Your task to perform on an android device: Open settings on Google Maps Image 0: 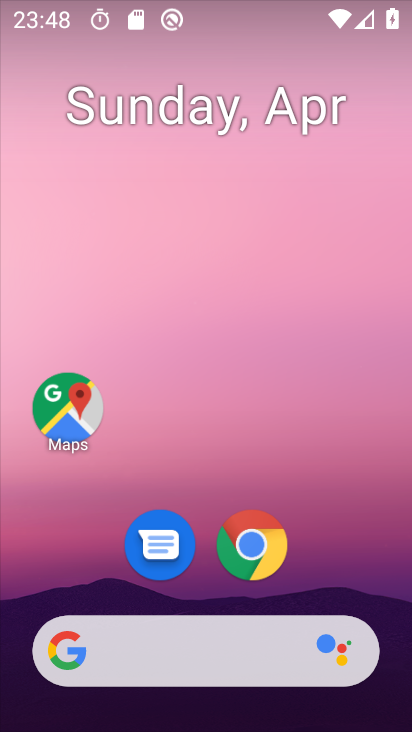
Step 0: click (351, 569)
Your task to perform on an android device: Open settings on Google Maps Image 1: 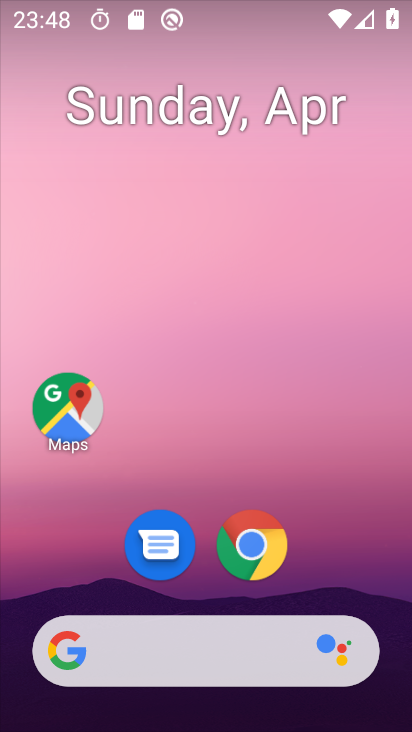
Step 1: drag from (351, 515) to (356, 237)
Your task to perform on an android device: Open settings on Google Maps Image 2: 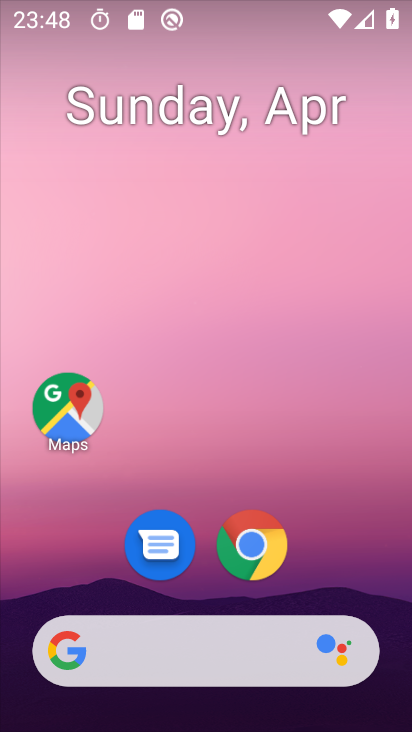
Step 2: drag from (376, 561) to (355, 227)
Your task to perform on an android device: Open settings on Google Maps Image 3: 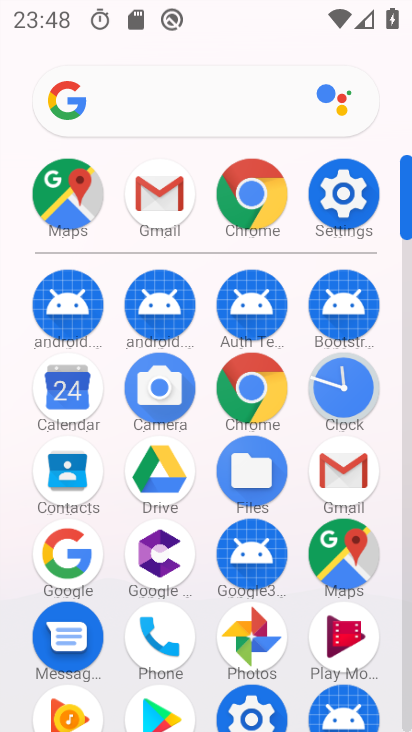
Step 3: click (48, 186)
Your task to perform on an android device: Open settings on Google Maps Image 4: 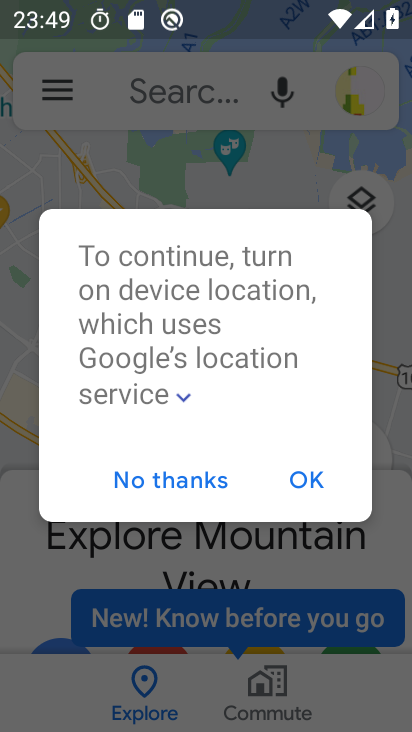
Step 4: click (189, 446)
Your task to perform on an android device: Open settings on Google Maps Image 5: 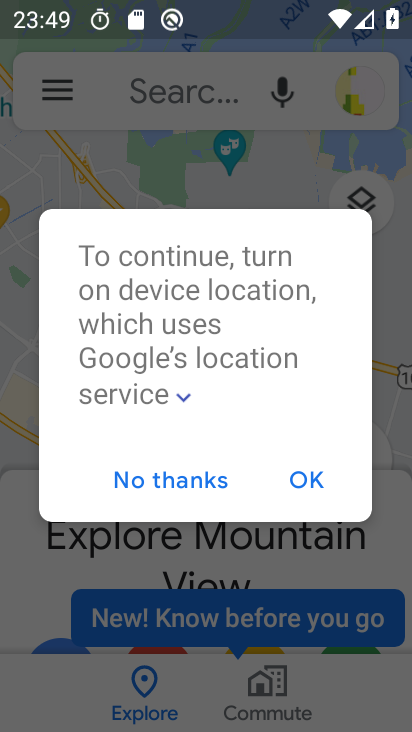
Step 5: click (187, 461)
Your task to perform on an android device: Open settings on Google Maps Image 6: 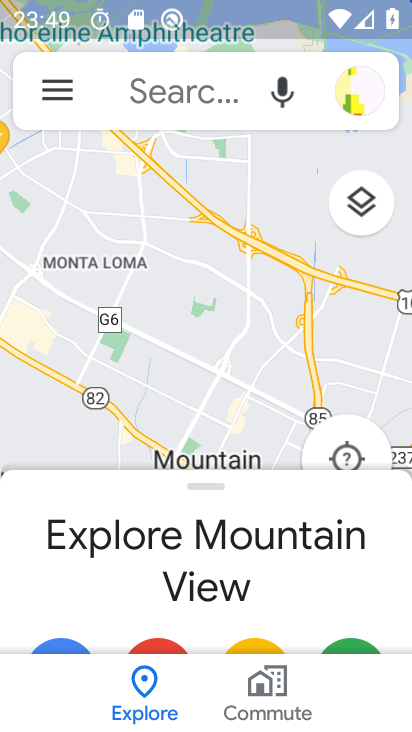
Step 6: click (60, 74)
Your task to perform on an android device: Open settings on Google Maps Image 7: 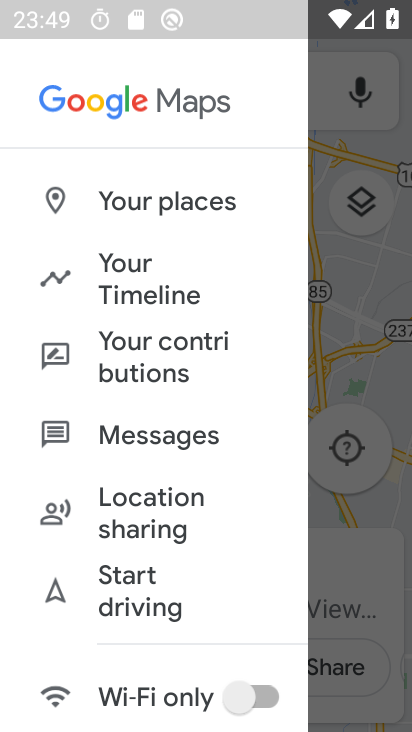
Step 7: drag from (165, 614) to (188, 209)
Your task to perform on an android device: Open settings on Google Maps Image 8: 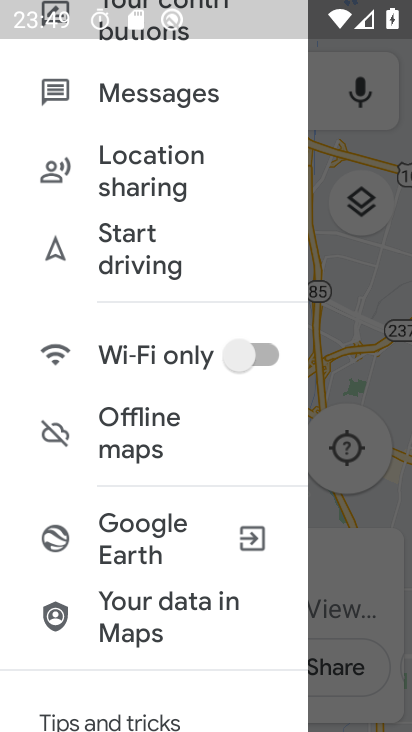
Step 8: drag from (155, 582) to (219, 188)
Your task to perform on an android device: Open settings on Google Maps Image 9: 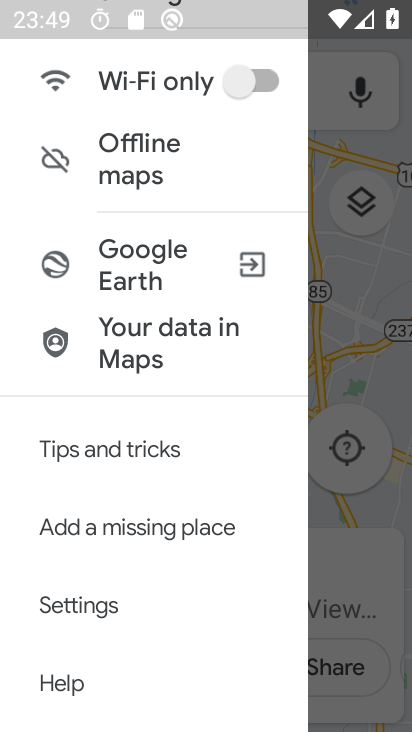
Step 9: click (142, 598)
Your task to perform on an android device: Open settings on Google Maps Image 10: 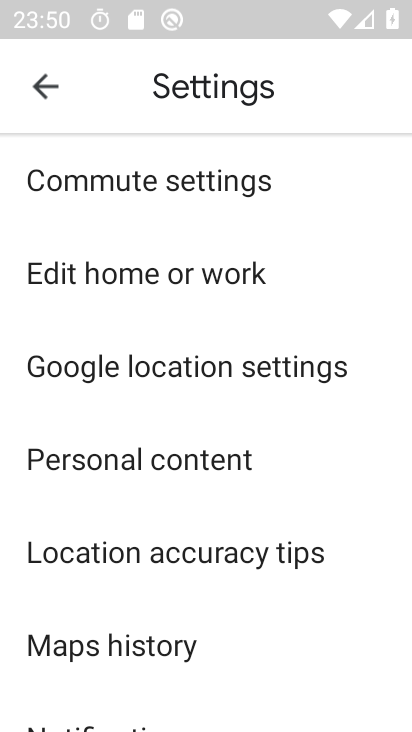
Step 10: task complete